Your task to perform on an android device: set an alarm Image 0: 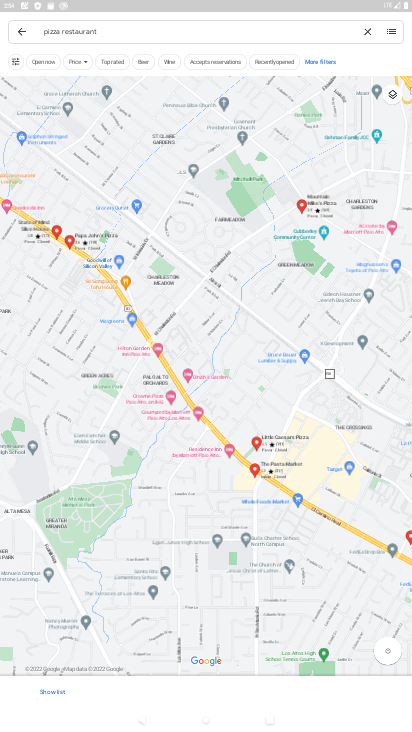
Step 0: press home button
Your task to perform on an android device: set an alarm Image 1: 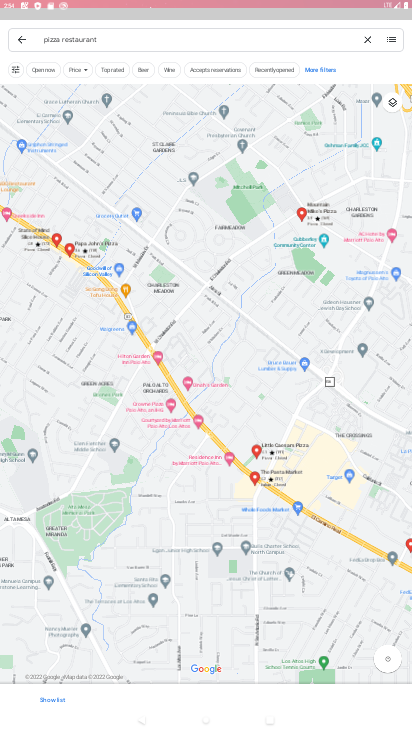
Step 1: drag from (194, 570) to (261, 108)
Your task to perform on an android device: set an alarm Image 2: 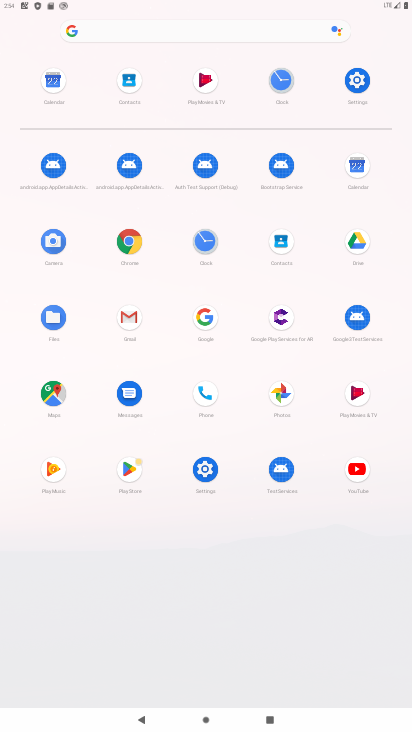
Step 2: click (198, 245)
Your task to perform on an android device: set an alarm Image 3: 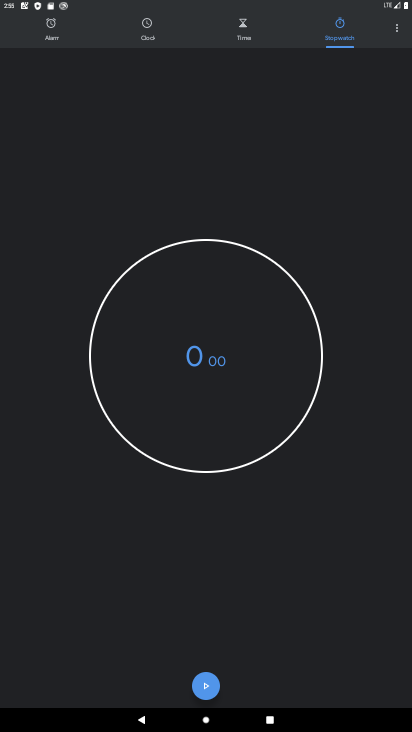
Step 3: drag from (240, 471) to (285, 193)
Your task to perform on an android device: set an alarm Image 4: 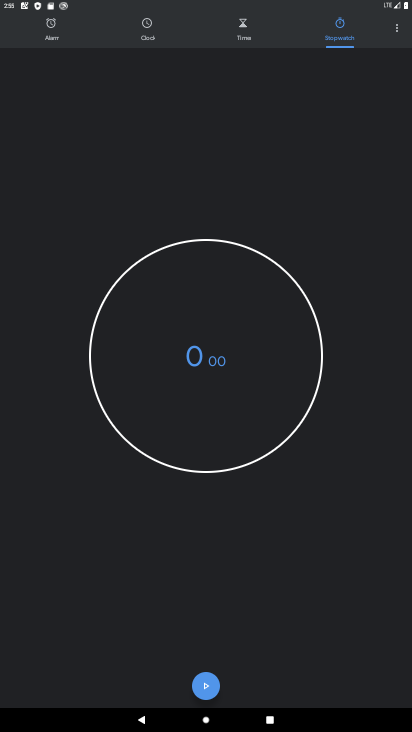
Step 4: click (369, 220)
Your task to perform on an android device: set an alarm Image 5: 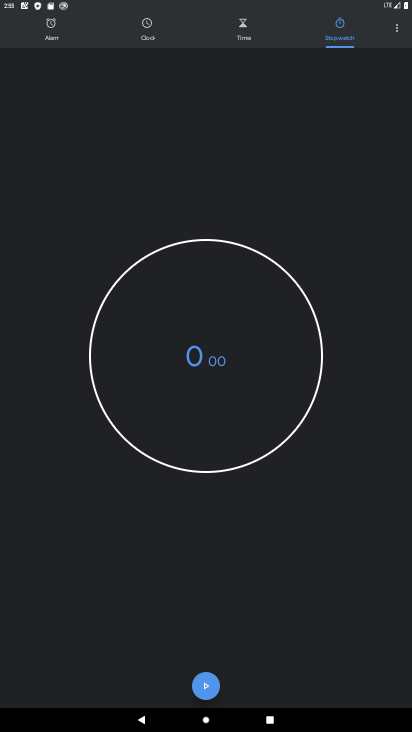
Step 5: click (58, 22)
Your task to perform on an android device: set an alarm Image 6: 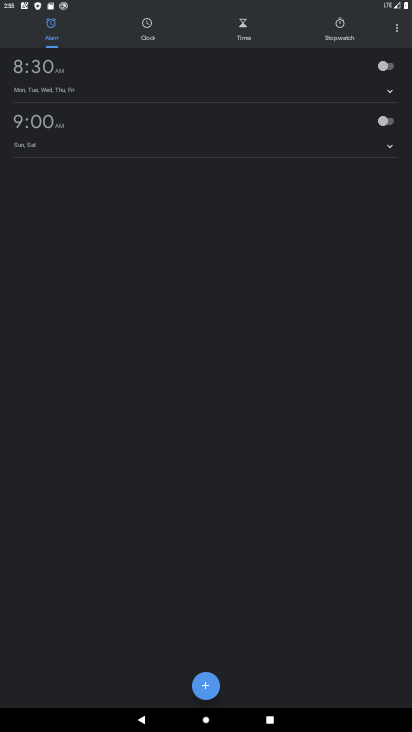
Step 6: click (385, 64)
Your task to perform on an android device: set an alarm Image 7: 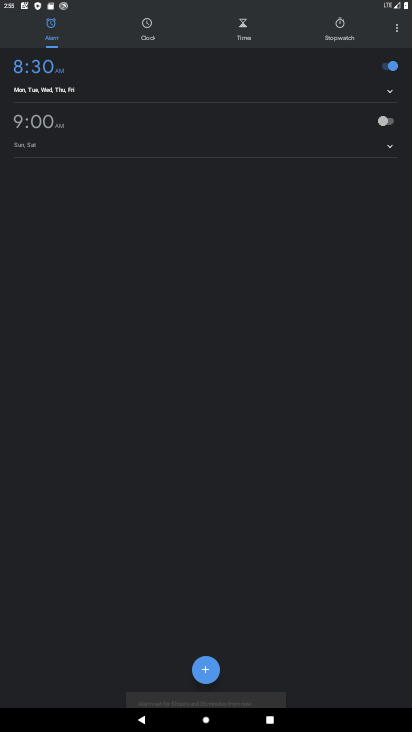
Step 7: task complete